Your task to perform on an android device: toggle show notifications on the lock screen Image 0: 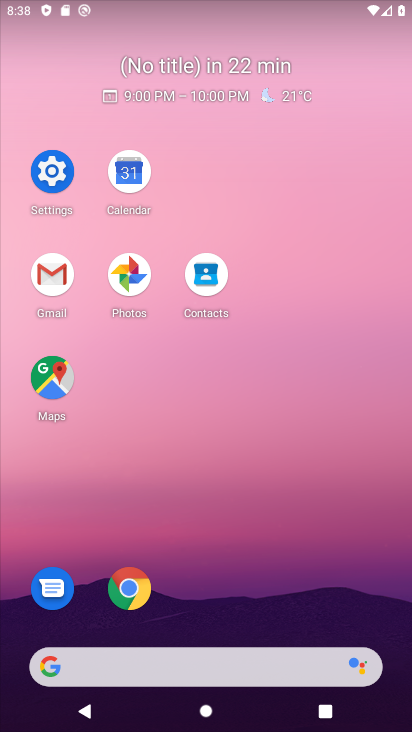
Step 0: click (50, 195)
Your task to perform on an android device: toggle show notifications on the lock screen Image 1: 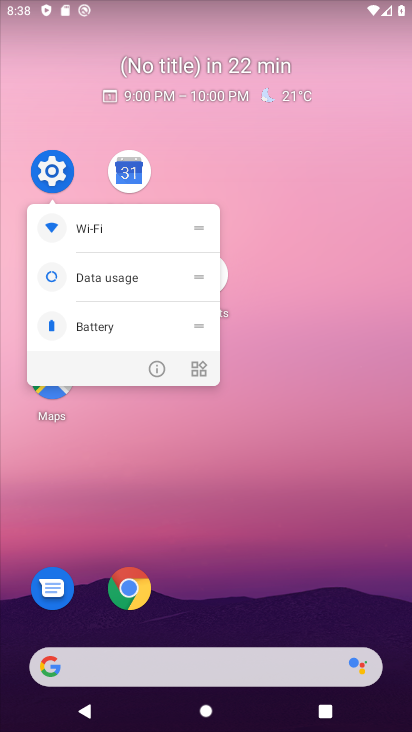
Step 1: click (56, 185)
Your task to perform on an android device: toggle show notifications on the lock screen Image 2: 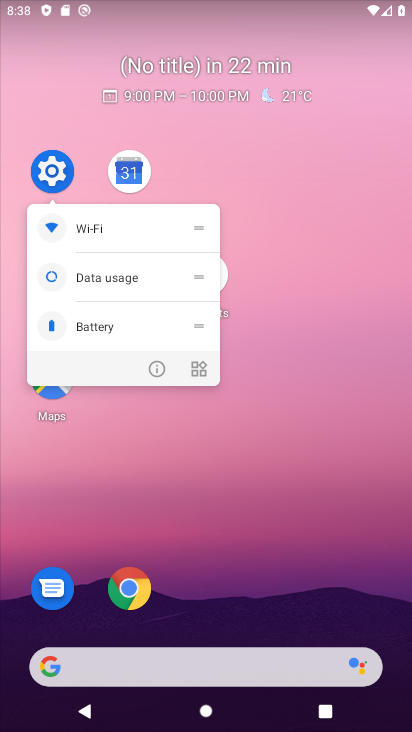
Step 2: click (55, 179)
Your task to perform on an android device: toggle show notifications on the lock screen Image 3: 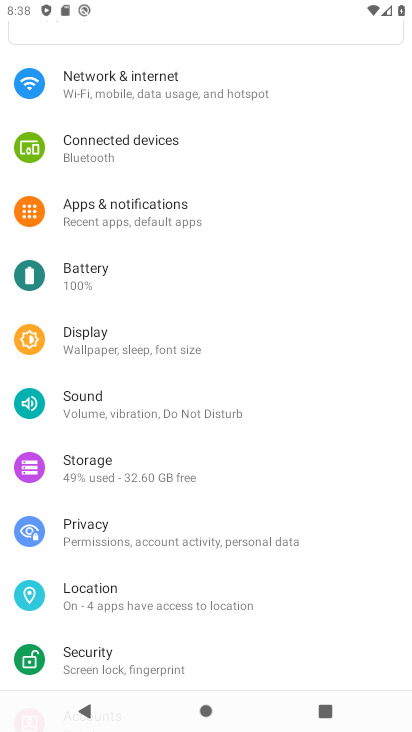
Step 3: click (91, 215)
Your task to perform on an android device: toggle show notifications on the lock screen Image 4: 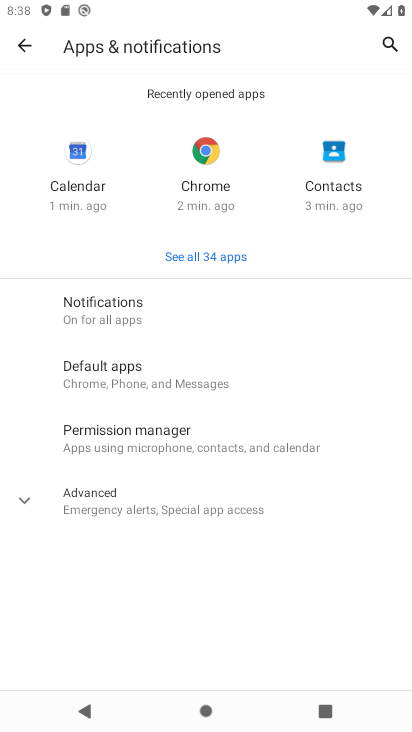
Step 4: click (135, 511)
Your task to perform on an android device: toggle show notifications on the lock screen Image 5: 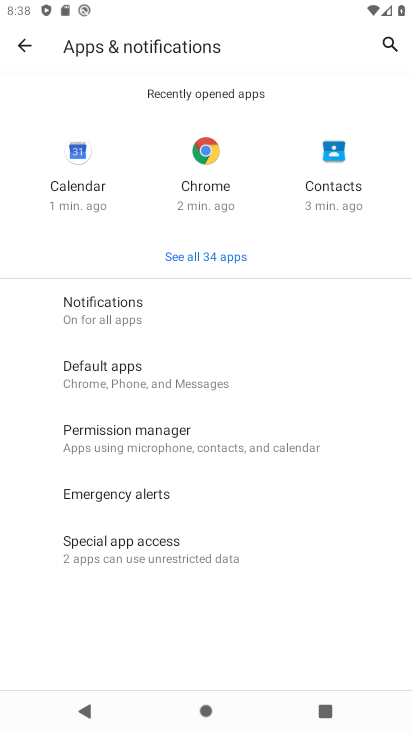
Step 5: click (167, 321)
Your task to perform on an android device: toggle show notifications on the lock screen Image 6: 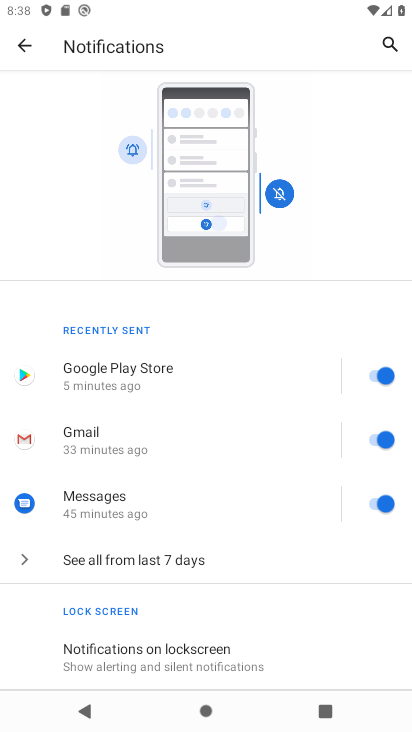
Step 6: click (164, 653)
Your task to perform on an android device: toggle show notifications on the lock screen Image 7: 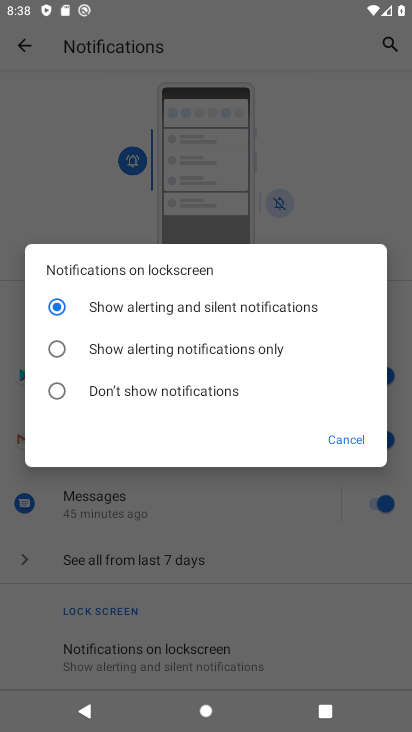
Step 7: click (153, 348)
Your task to perform on an android device: toggle show notifications on the lock screen Image 8: 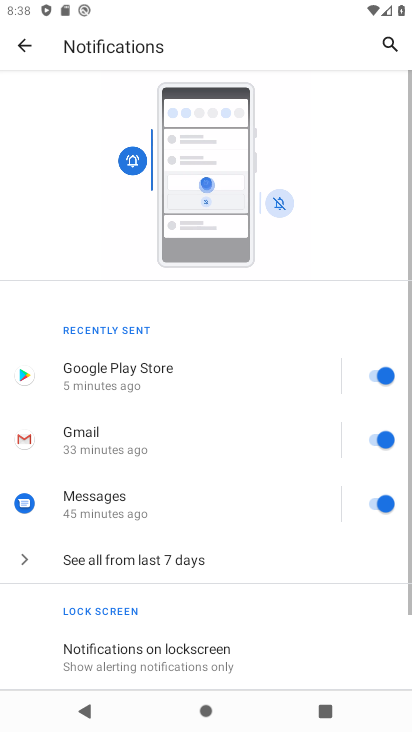
Step 8: task complete